Your task to perform on an android device: Open Yahoo.com Image 0: 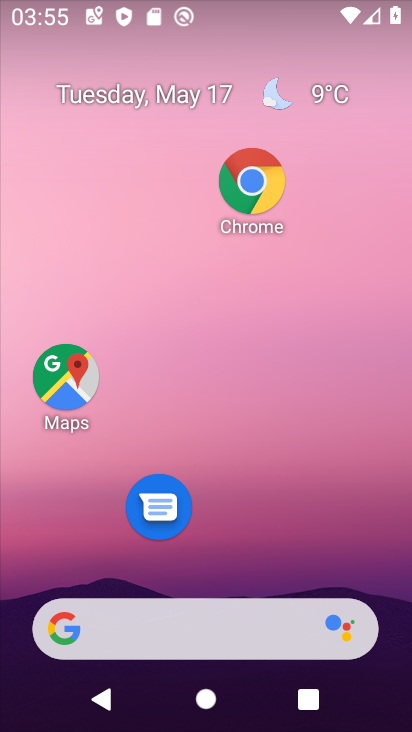
Step 0: click (258, 185)
Your task to perform on an android device: Open Yahoo.com Image 1: 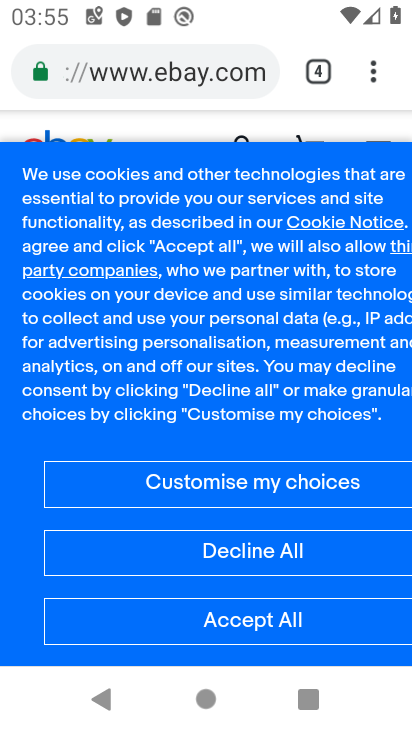
Step 1: click (325, 72)
Your task to perform on an android device: Open Yahoo.com Image 2: 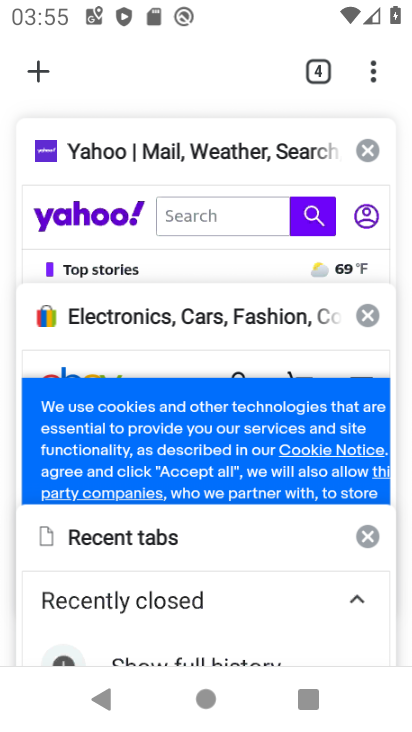
Step 2: click (115, 184)
Your task to perform on an android device: Open Yahoo.com Image 3: 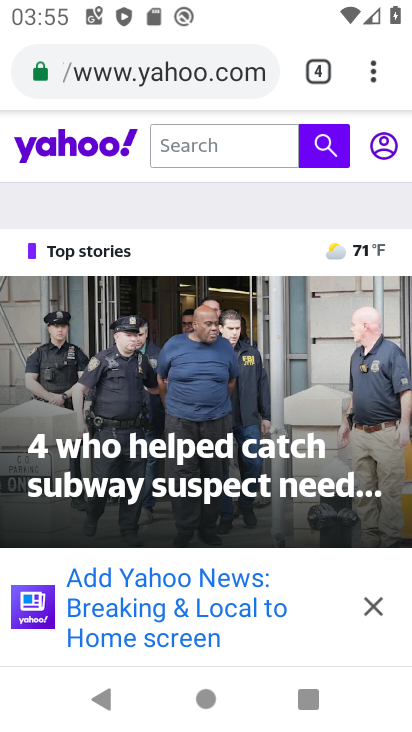
Step 3: task complete